Your task to perform on an android device: What's on my calendar tomorrow? Image 0: 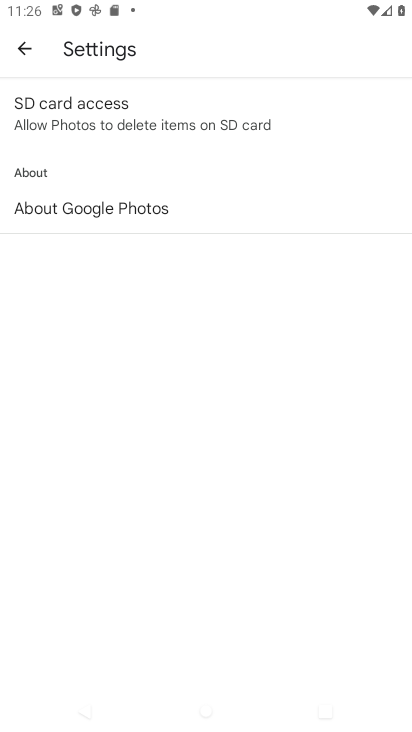
Step 0: press home button
Your task to perform on an android device: What's on my calendar tomorrow? Image 1: 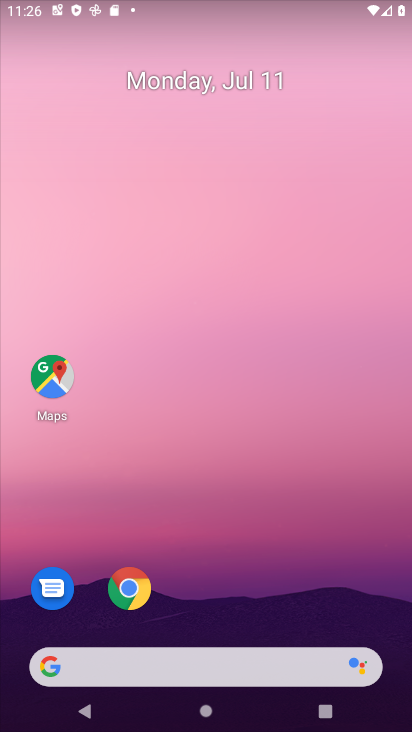
Step 1: drag from (144, 704) to (98, 23)
Your task to perform on an android device: What's on my calendar tomorrow? Image 2: 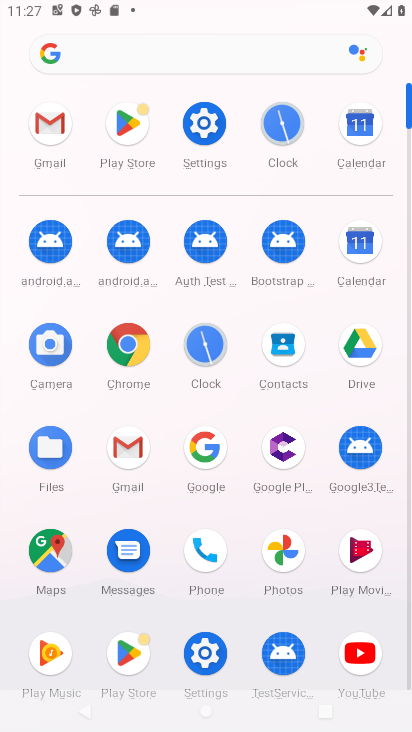
Step 2: click (359, 251)
Your task to perform on an android device: What's on my calendar tomorrow? Image 3: 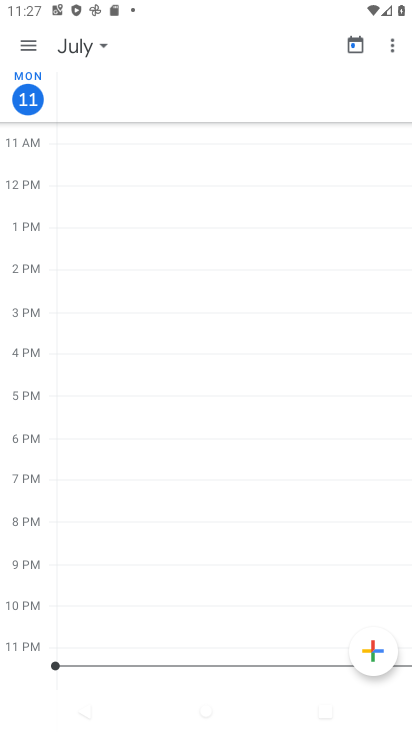
Step 3: click (76, 43)
Your task to perform on an android device: What's on my calendar tomorrow? Image 4: 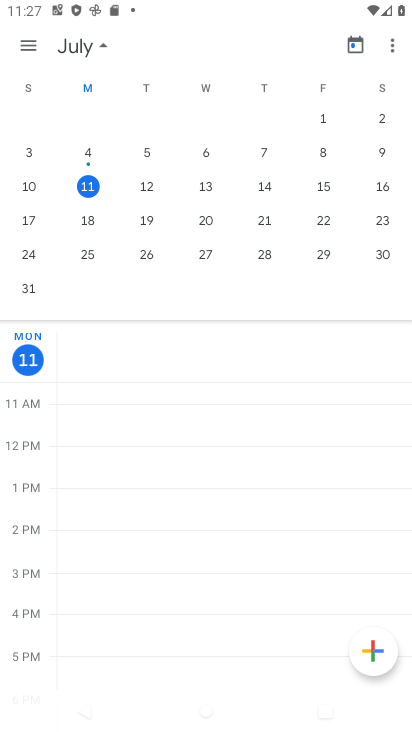
Step 4: click (143, 186)
Your task to perform on an android device: What's on my calendar tomorrow? Image 5: 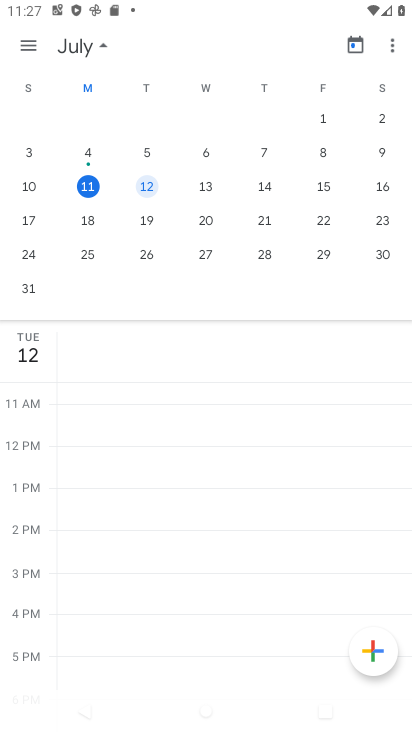
Step 5: task complete